Your task to perform on an android device: turn pop-ups on in chrome Image 0: 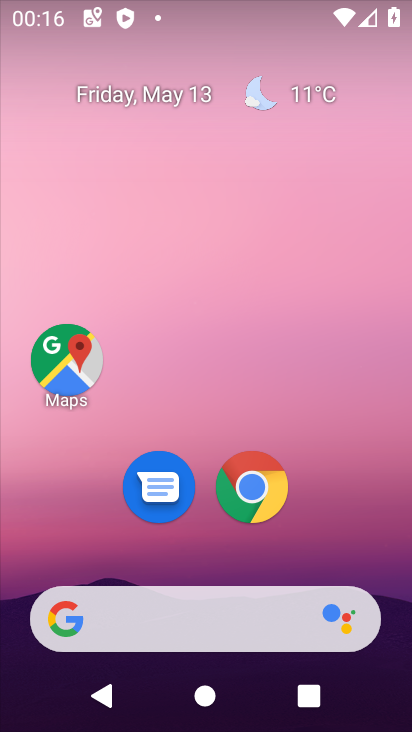
Step 0: click (253, 488)
Your task to perform on an android device: turn pop-ups on in chrome Image 1: 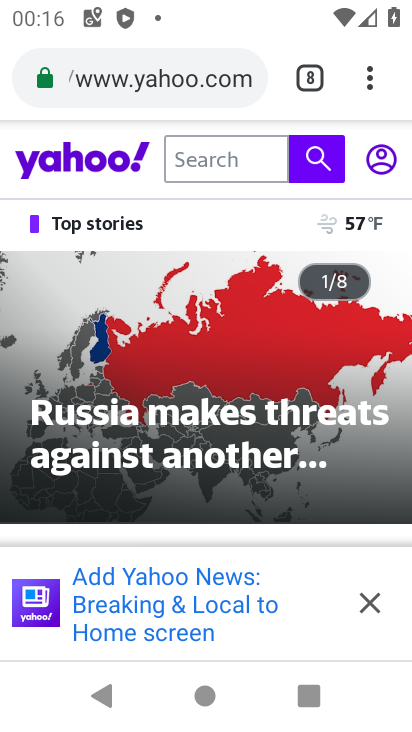
Step 1: click (388, 83)
Your task to perform on an android device: turn pop-ups on in chrome Image 2: 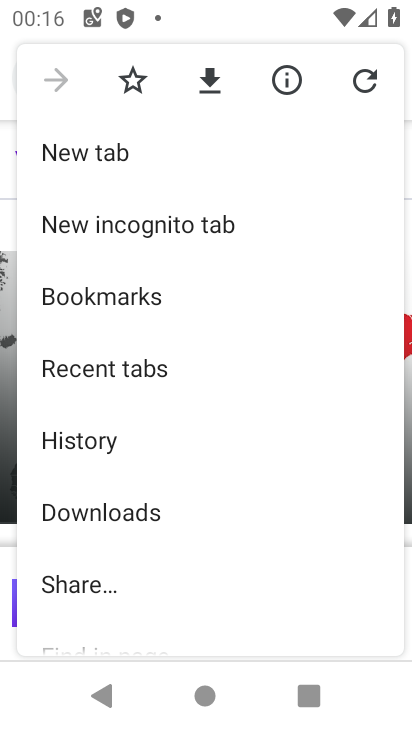
Step 2: drag from (193, 547) to (188, 237)
Your task to perform on an android device: turn pop-ups on in chrome Image 3: 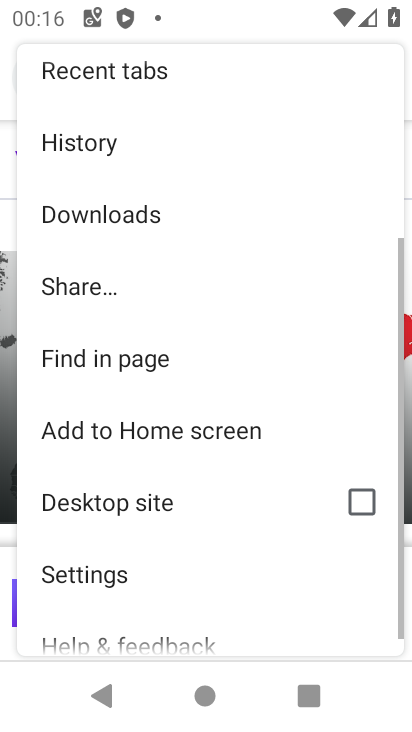
Step 3: click (104, 581)
Your task to perform on an android device: turn pop-ups on in chrome Image 4: 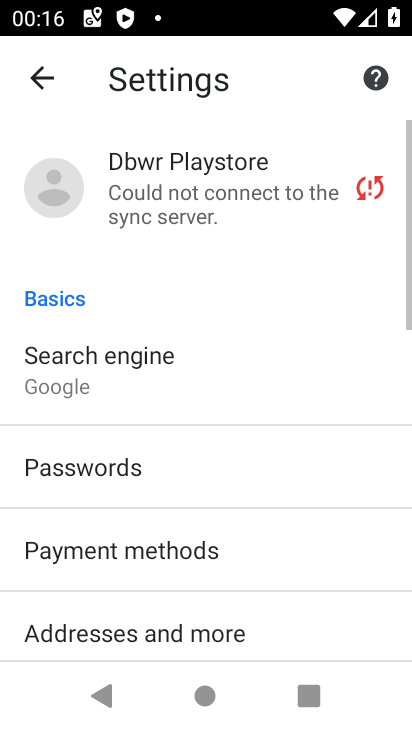
Step 4: drag from (165, 562) to (207, 222)
Your task to perform on an android device: turn pop-ups on in chrome Image 5: 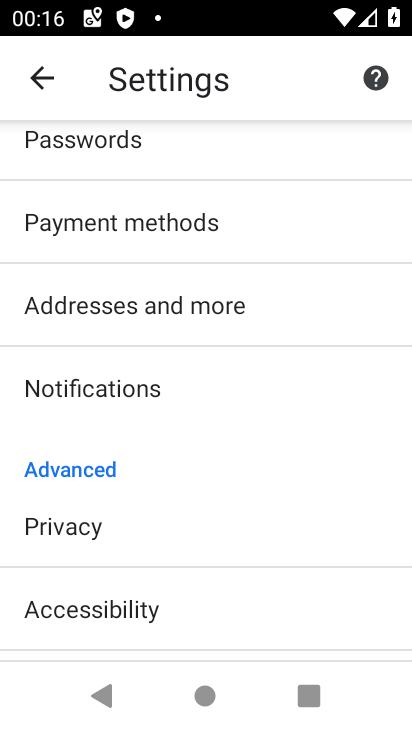
Step 5: drag from (216, 597) to (238, 267)
Your task to perform on an android device: turn pop-ups on in chrome Image 6: 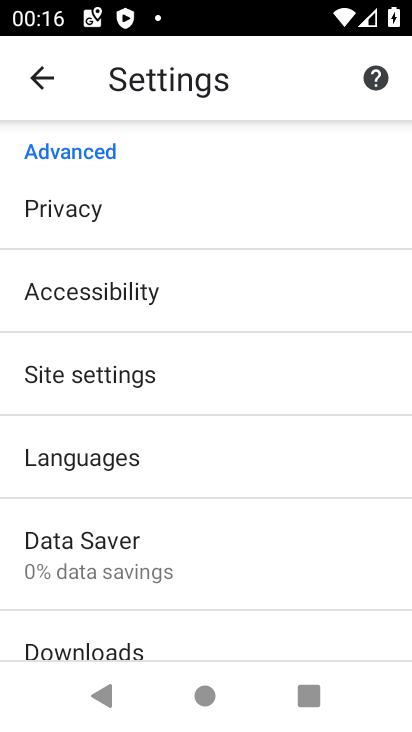
Step 6: click (118, 370)
Your task to perform on an android device: turn pop-ups on in chrome Image 7: 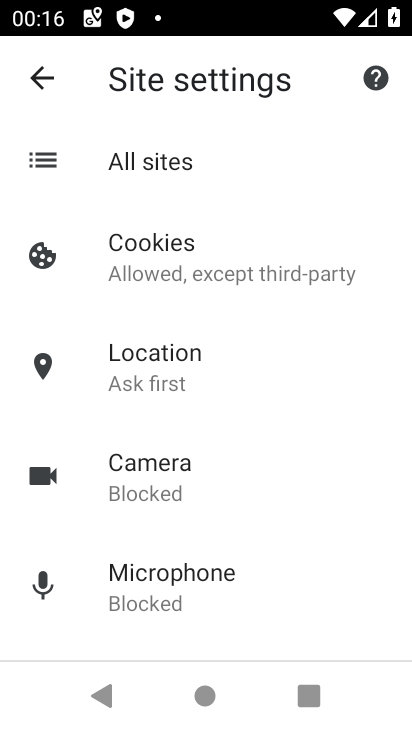
Step 7: drag from (151, 505) to (245, 185)
Your task to perform on an android device: turn pop-ups on in chrome Image 8: 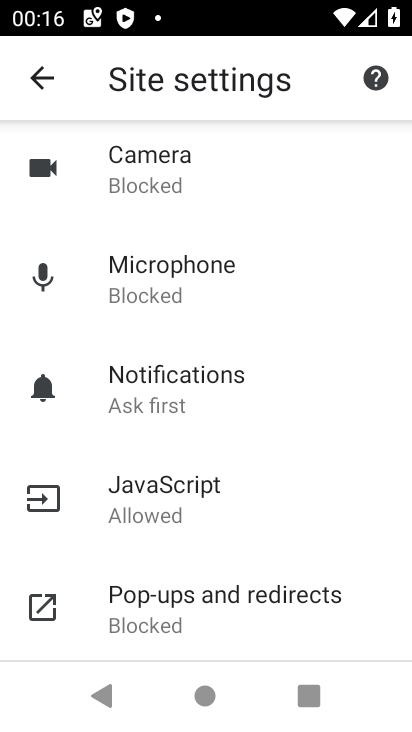
Step 8: click (206, 604)
Your task to perform on an android device: turn pop-ups on in chrome Image 9: 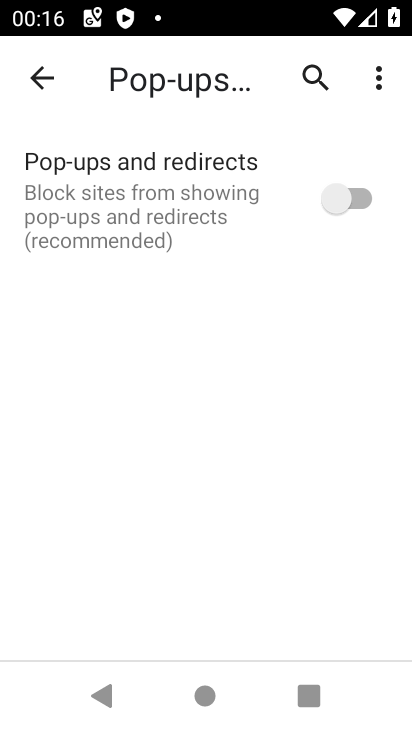
Step 9: click (365, 186)
Your task to perform on an android device: turn pop-ups on in chrome Image 10: 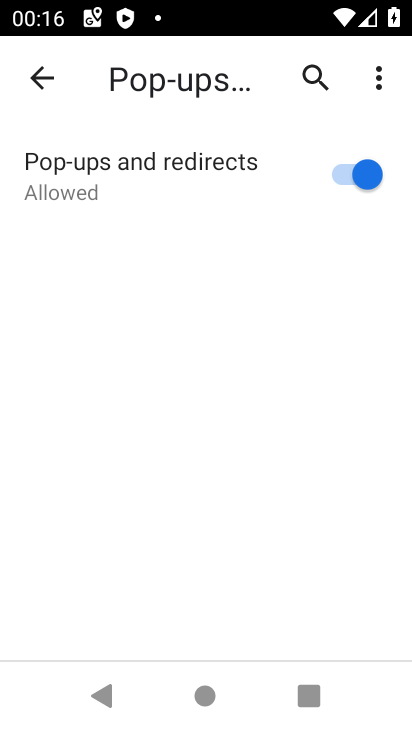
Step 10: task complete